Your task to perform on an android device: turn off priority inbox in the gmail app Image 0: 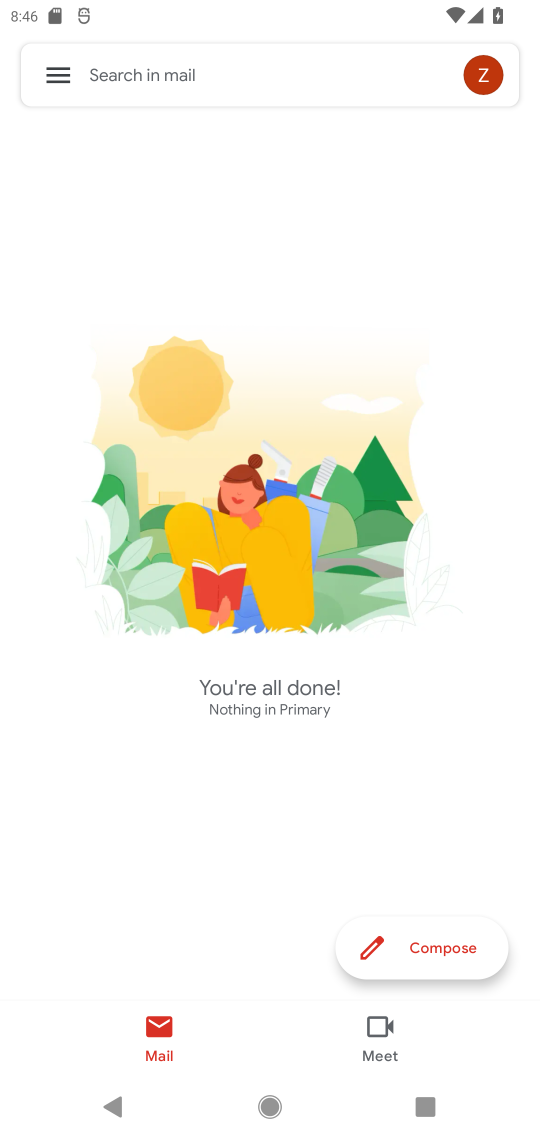
Step 0: click (64, 69)
Your task to perform on an android device: turn off priority inbox in the gmail app Image 1: 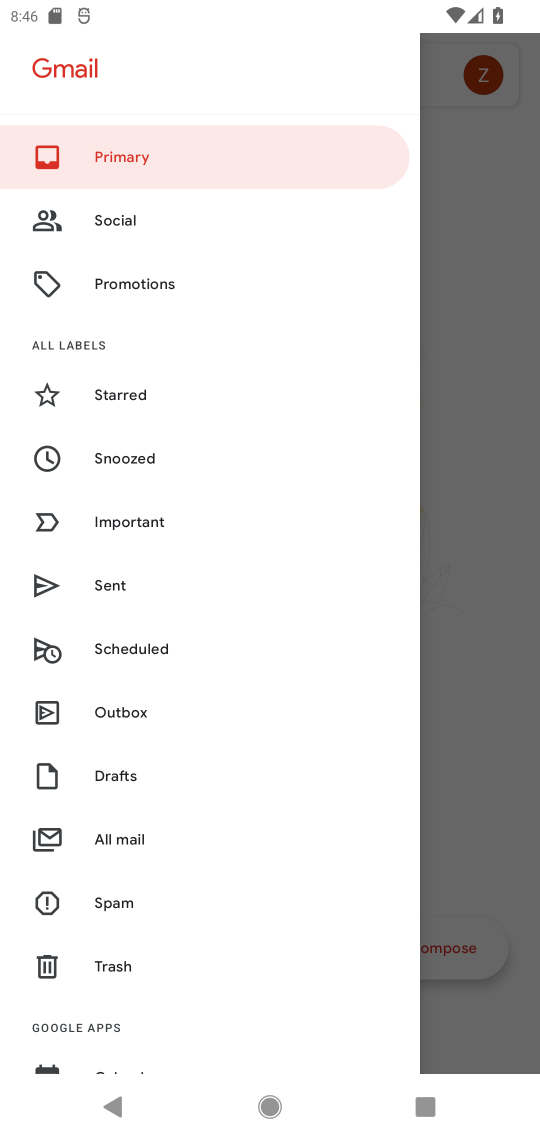
Step 1: drag from (119, 989) to (266, 20)
Your task to perform on an android device: turn off priority inbox in the gmail app Image 2: 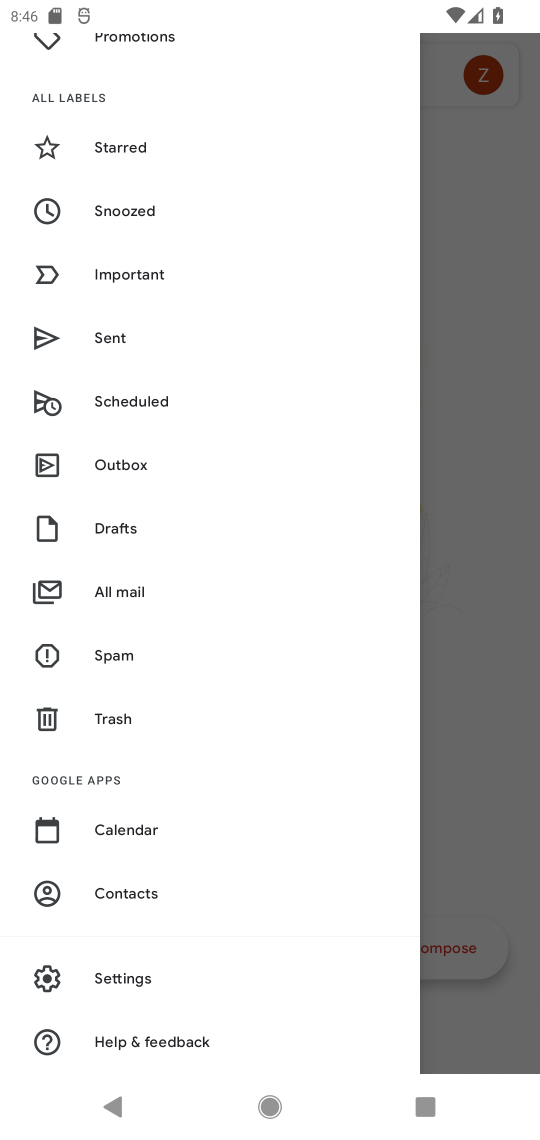
Step 2: click (119, 982)
Your task to perform on an android device: turn off priority inbox in the gmail app Image 3: 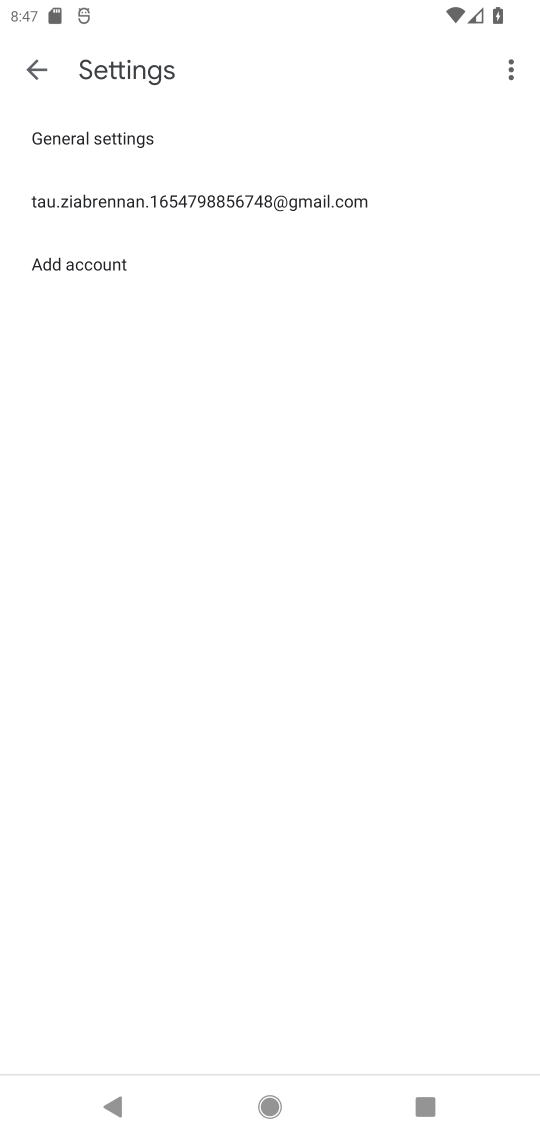
Step 3: click (376, 204)
Your task to perform on an android device: turn off priority inbox in the gmail app Image 4: 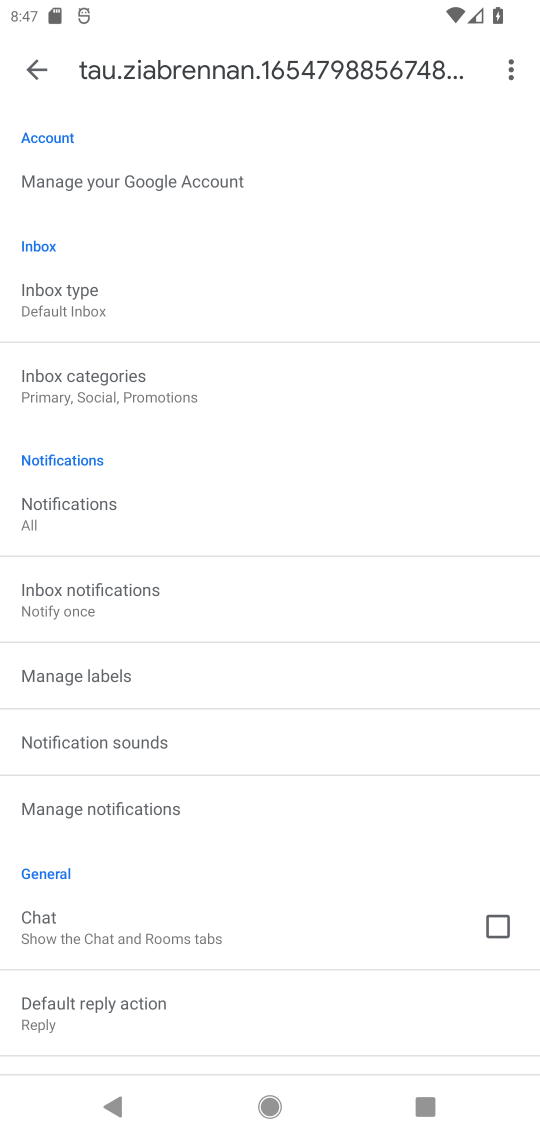
Step 4: task complete